Your task to perform on an android device: toggle show notifications on the lock screen Image 0: 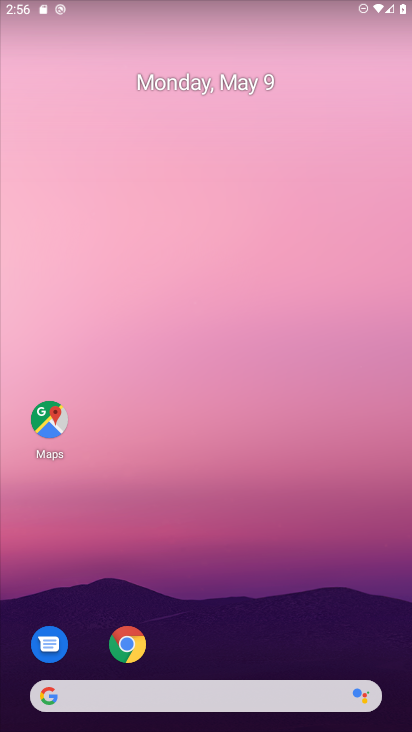
Step 0: drag from (193, 211) to (230, 86)
Your task to perform on an android device: toggle show notifications on the lock screen Image 1: 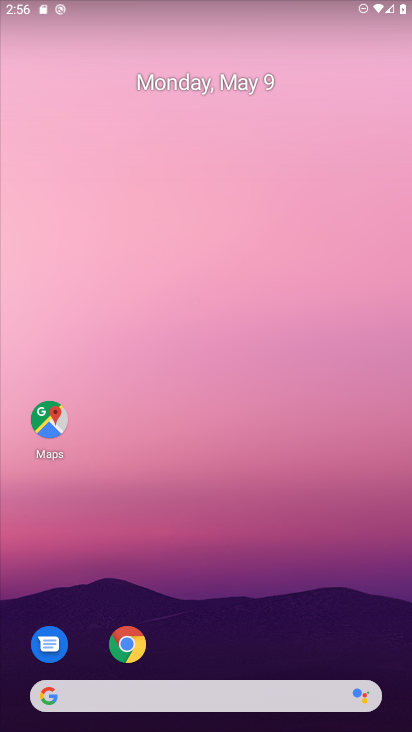
Step 1: drag from (223, 484) to (256, 216)
Your task to perform on an android device: toggle show notifications on the lock screen Image 2: 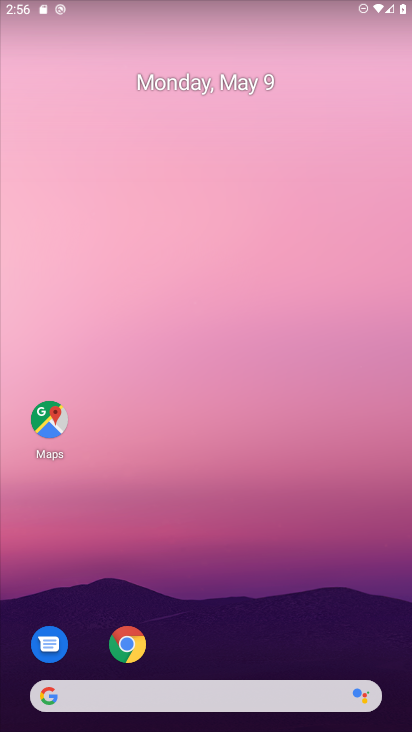
Step 2: drag from (279, 471) to (329, 107)
Your task to perform on an android device: toggle show notifications on the lock screen Image 3: 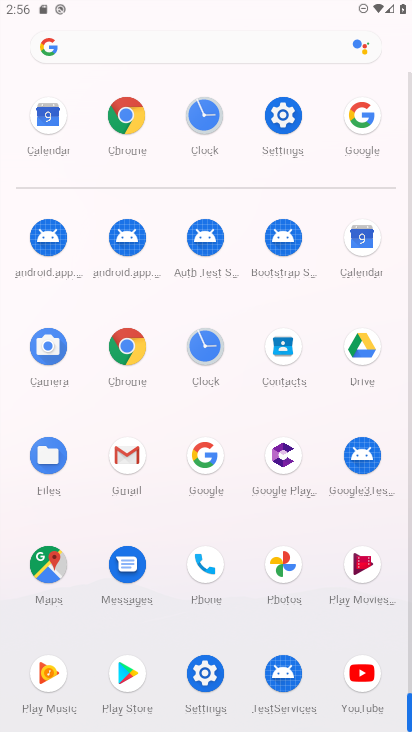
Step 3: click (287, 144)
Your task to perform on an android device: toggle show notifications on the lock screen Image 4: 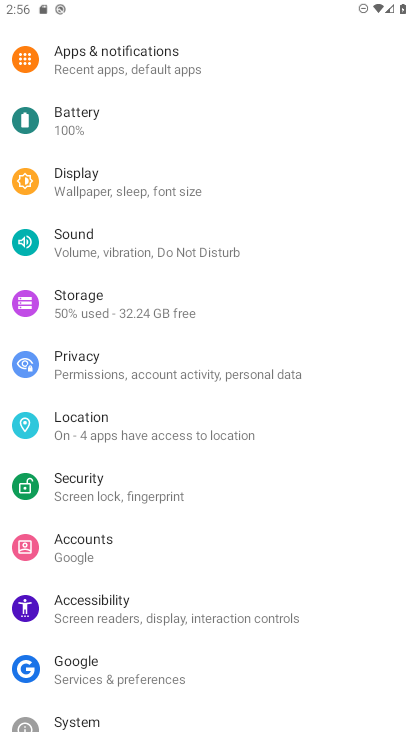
Step 4: click (151, 59)
Your task to perform on an android device: toggle show notifications on the lock screen Image 5: 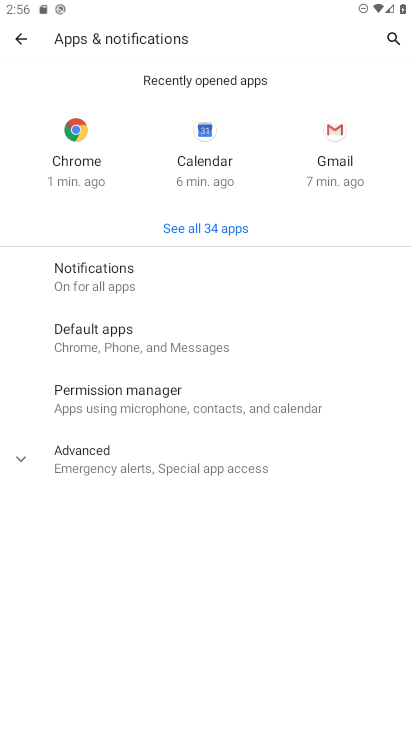
Step 5: click (93, 294)
Your task to perform on an android device: toggle show notifications on the lock screen Image 6: 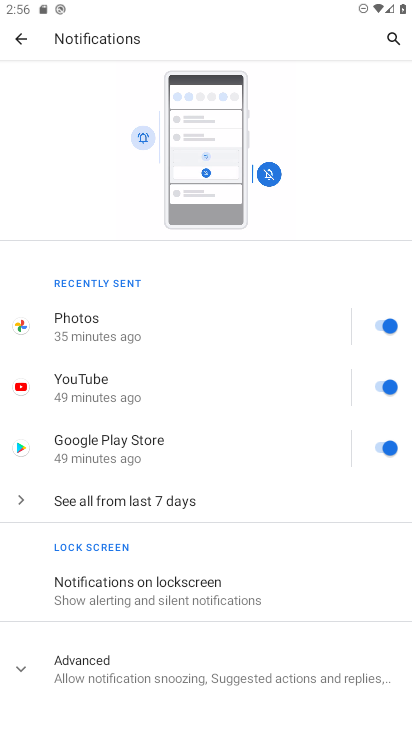
Step 6: click (143, 590)
Your task to perform on an android device: toggle show notifications on the lock screen Image 7: 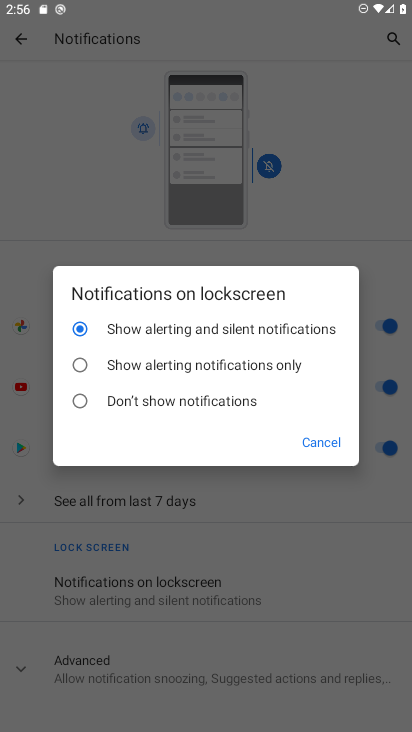
Step 7: click (78, 401)
Your task to perform on an android device: toggle show notifications on the lock screen Image 8: 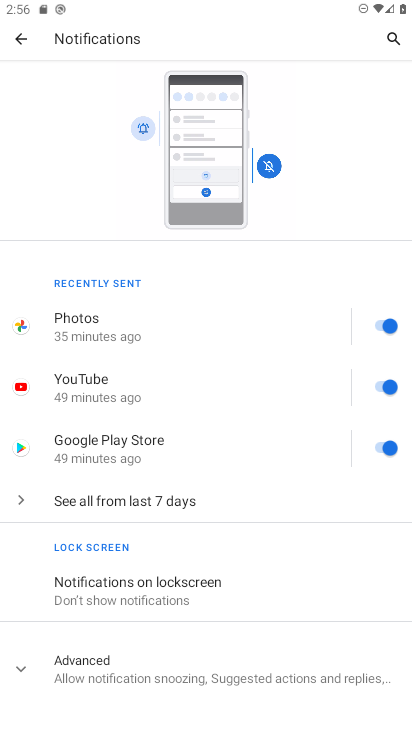
Step 8: task complete